Your task to perform on an android device: uninstall "Duolingo: language lessons" Image 0: 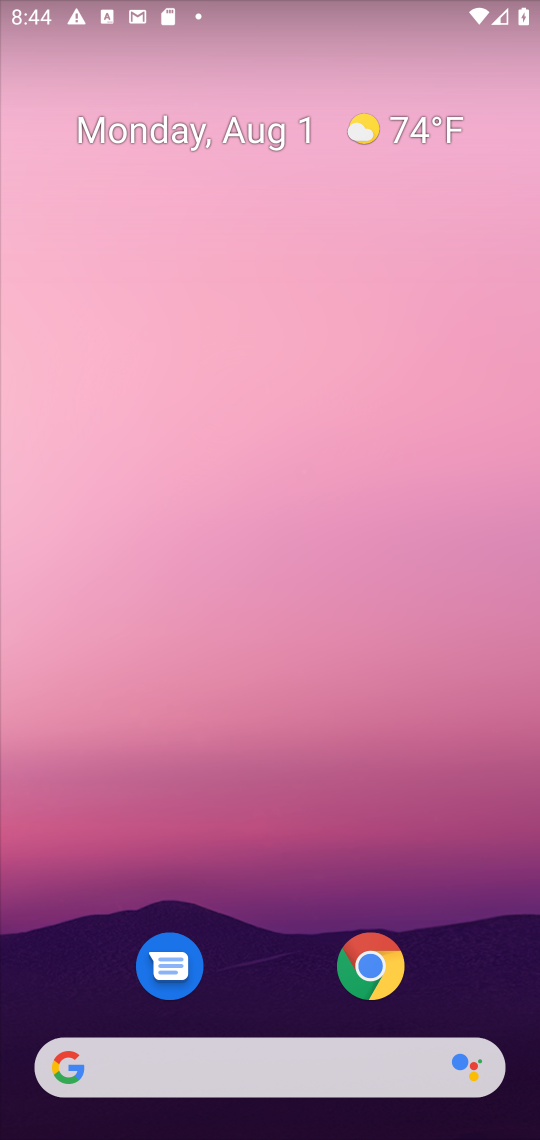
Step 0: drag from (526, 1100) to (482, 160)
Your task to perform on an android device: uninstall "Duolingo: language lessons" Image 1: 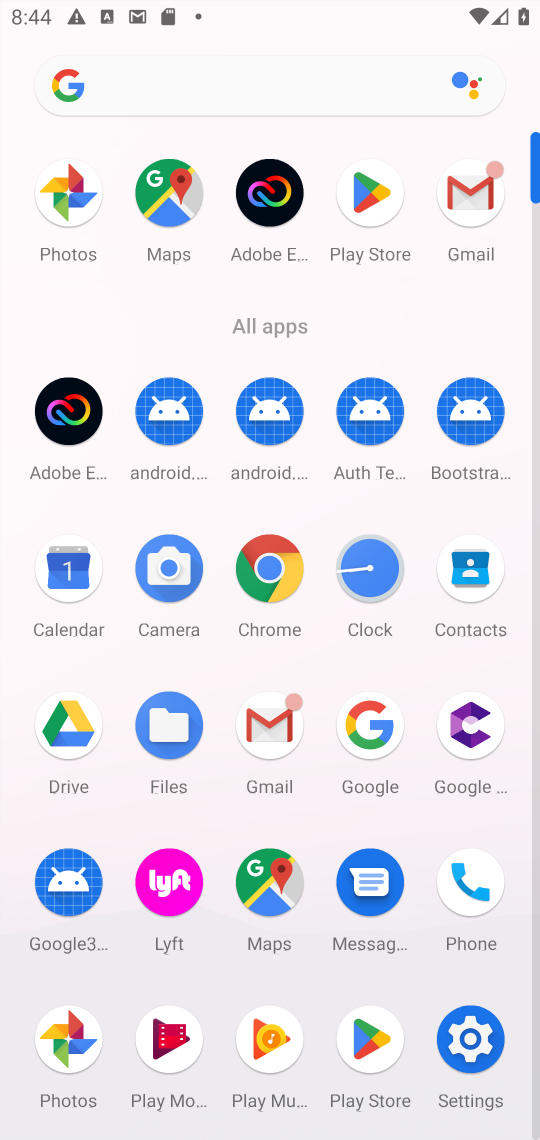
Step 1: click (365, 1039)
Your task to perform on an android device: uninstall "Duolingo: language lessons" Image 2: 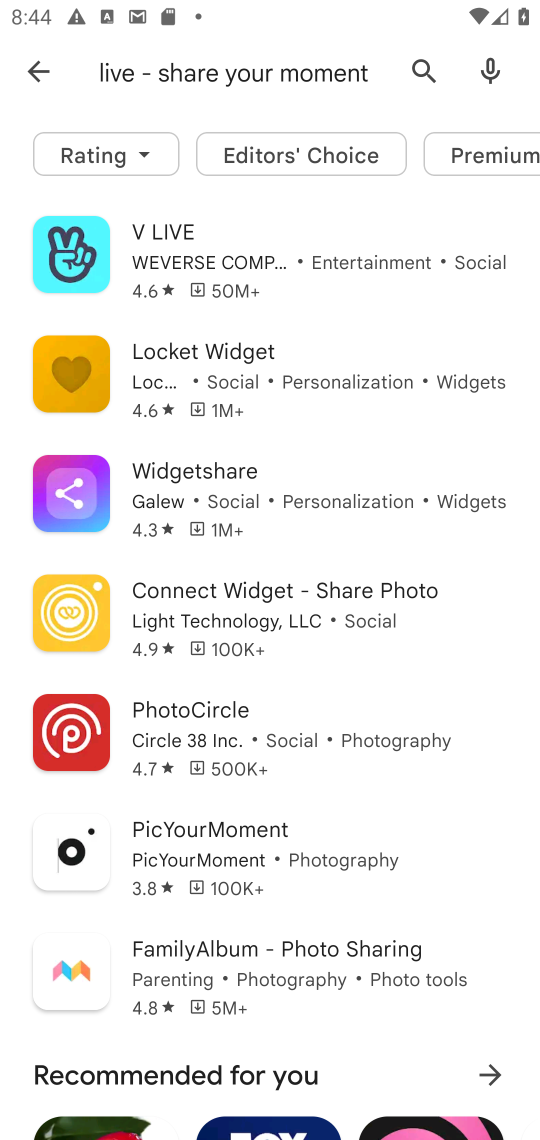
Step 2: click (427, 67)
Your task to perform on an android device: uninstall "Duolingo: language lessons" Image 3: 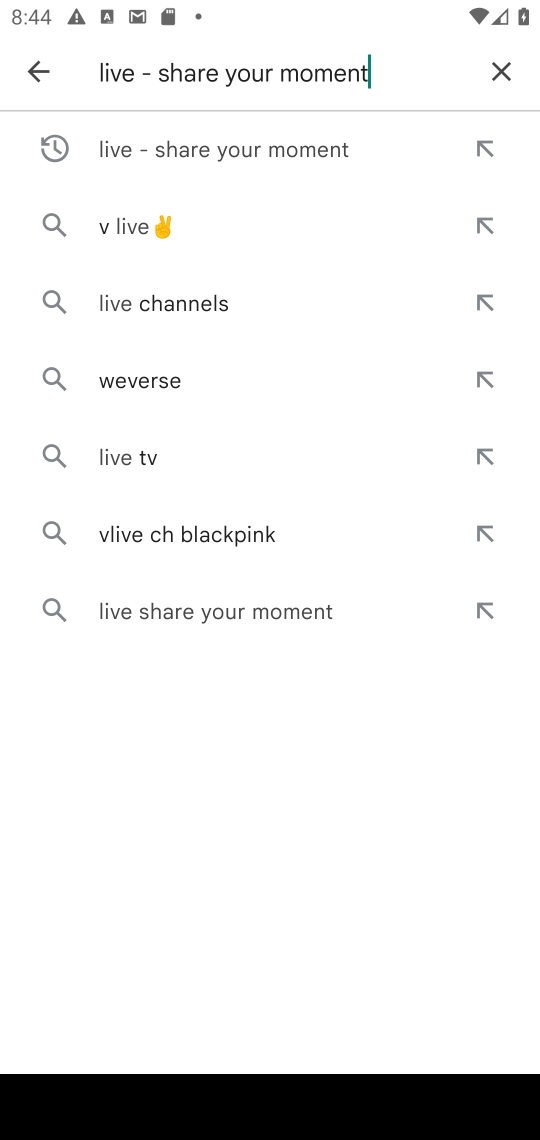
Step 3: click (498, 69)
Your task to perform on an android device: uninstall "Duolingo: language lessons" Image 4: 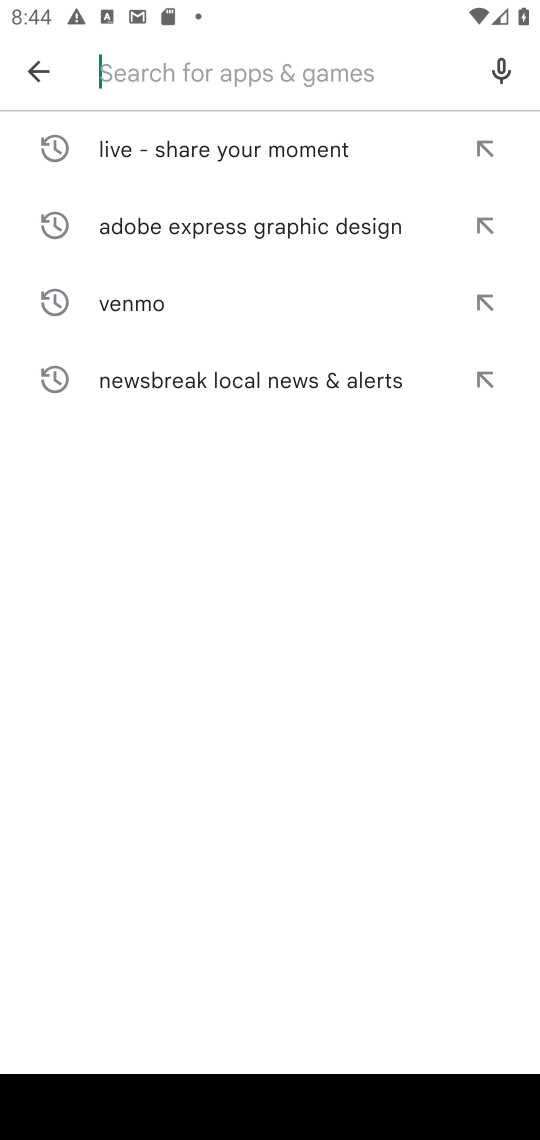
Step 4: type "Duolingo: language lessons"
Your task to perform on an android device: uninstall "Duolingo: language lessons" Image 5: 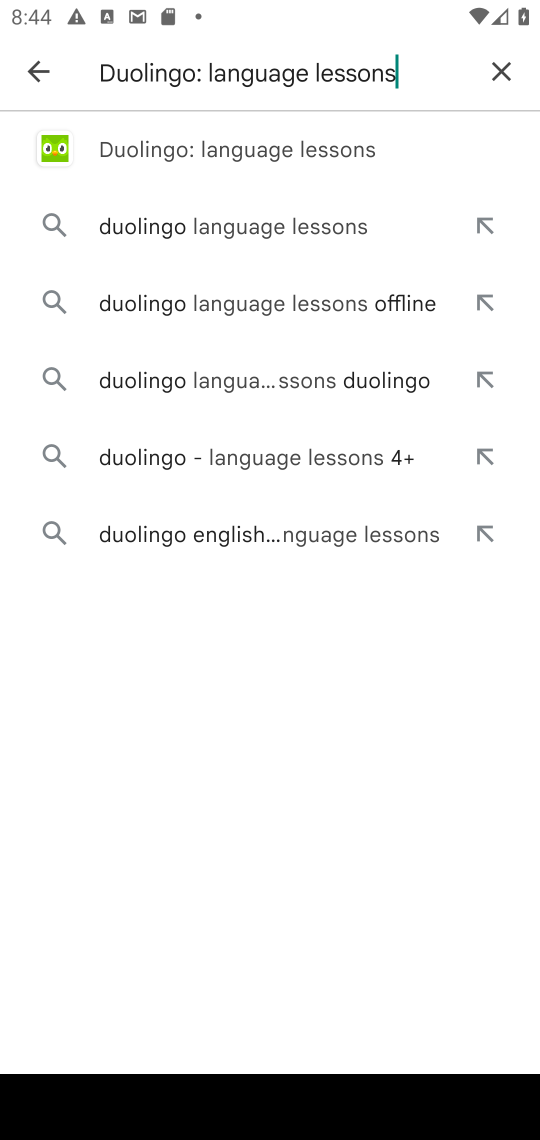
Step 5: click (183, 142)
Your task to perform on an android device: uninstall "Duolingo: language lessons" Image 6: 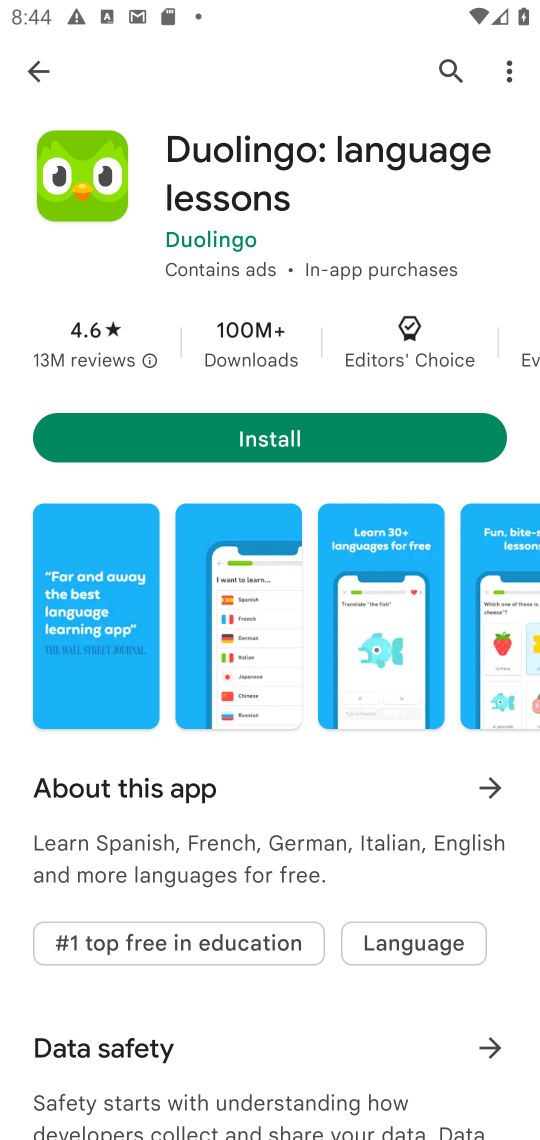
Step 6: task complete